Your task to perform on an android device: Search for the new steph curry shoes on Amazon. Image 0: 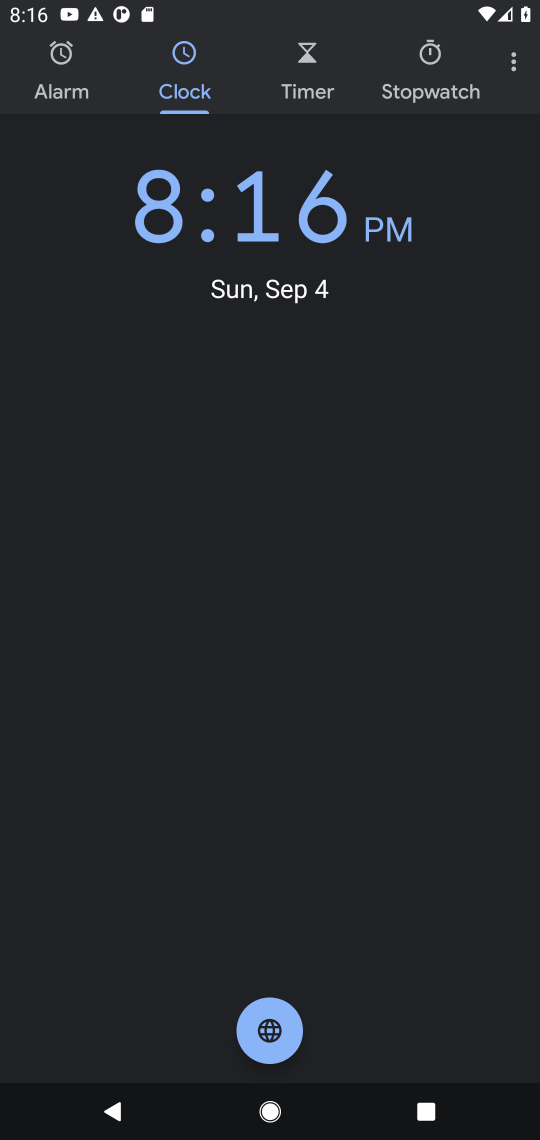
Step 0: task complete